Your task to perform on an android device: open the mobile data screen to see how much data has been used Image 0: 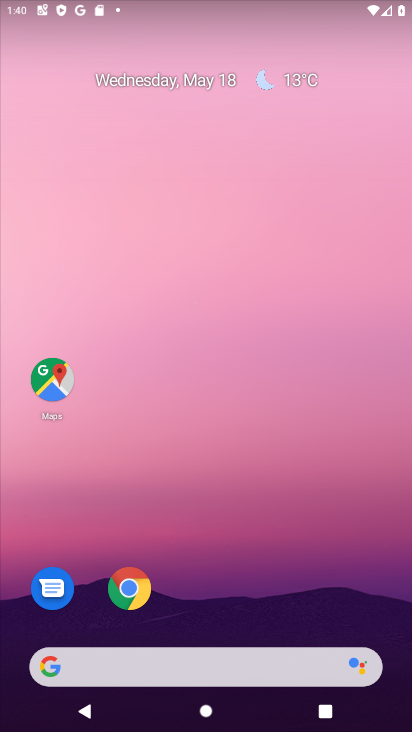
Step 0: click (404, 196)
Your task to perform on an android device: open the mobile data screen to see how much data has been used Image 1: 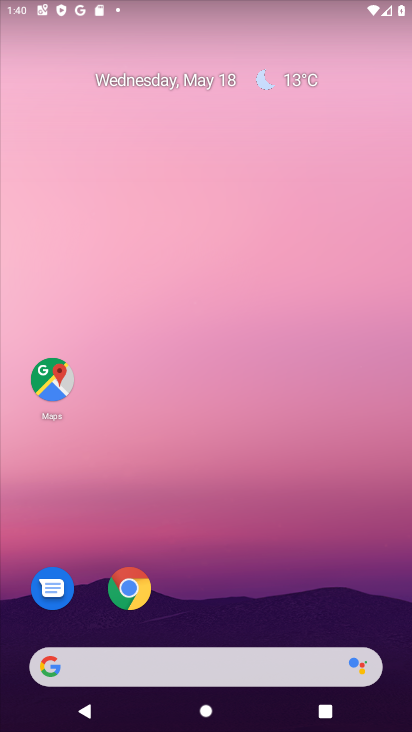
Step 1: drag from (214, 609) to (316, 151)
Your task to perform on an android device: open the mobile data screen to see how much data has been used Image 2: 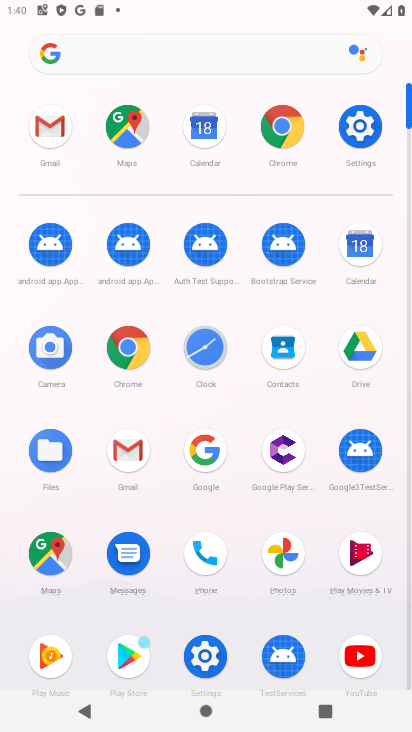
Step 2: click (348, 131)
Your task to perform on an android device: open the mobile data screen to see how much data has been used Image 3: 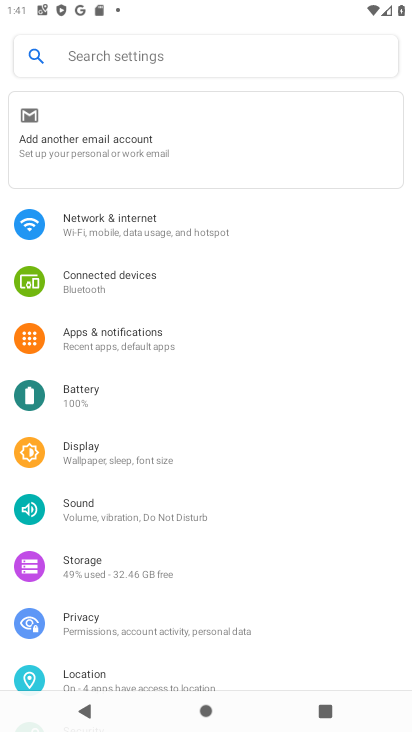
Step 3: click (126, 217)
Your task to perform on an android device: open the mobile data screen to see how much data has been used Image 4: 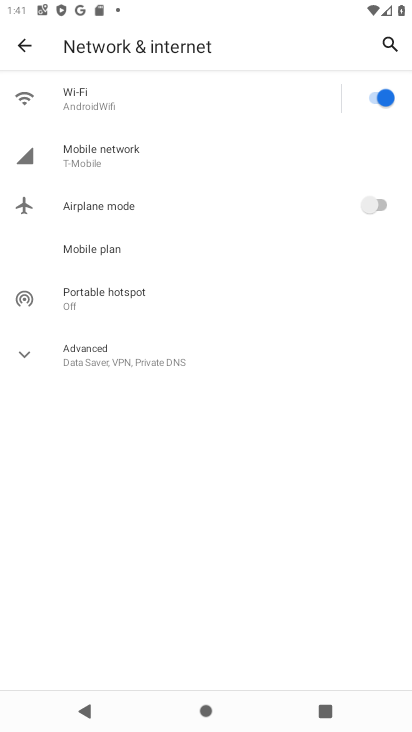
Step 4: click (168, 158)
Your task to perform on an android device: open the mobile data screen to see how much data has been used Image 5: 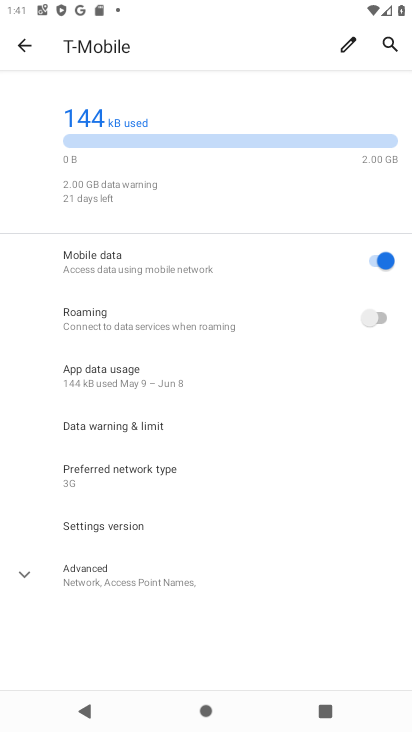
Step 5: click (154, 164)
Your task to perform on an android device: open the mobile data screen to see how much data has been used Image 6: 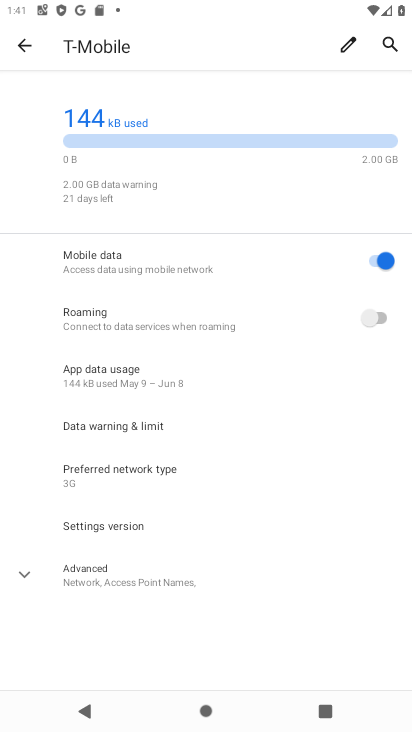
Step 6: task complete